Your task to perform on an android device: turn off sleep mode Image 0: 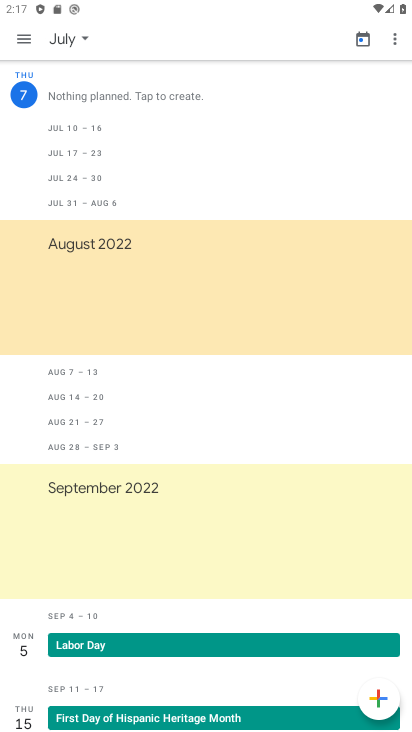
Step 0: press home button
Your task to perform on an android device: turn off sleep mode Image 1: 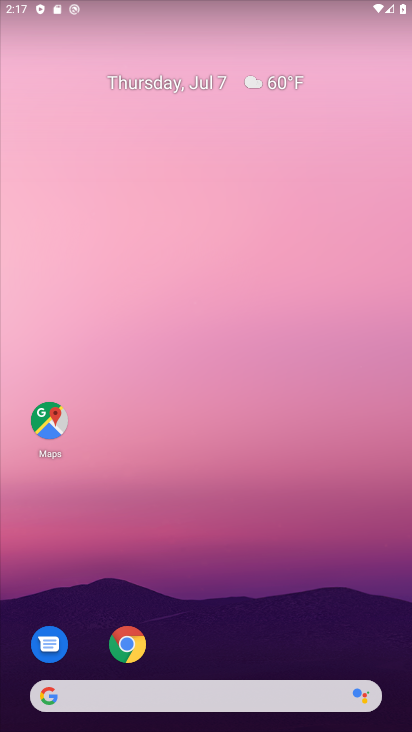
Step 1: drag from (203, 693) to (216, 279)
Your task to perform on an android device: turn off sleep mode Image 2: 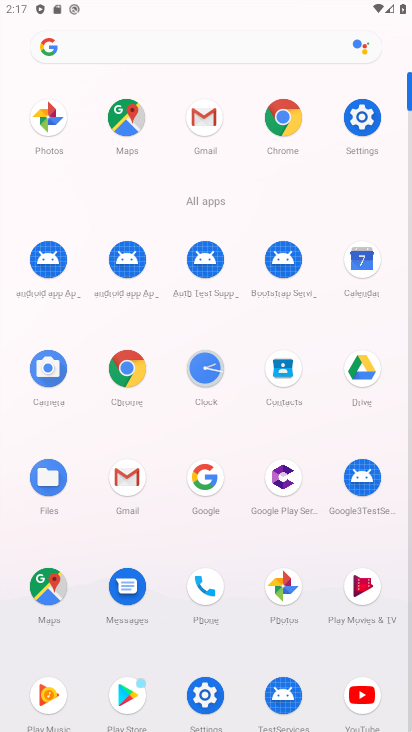
Step 2: click (366, 126)
Your task to perform on an android device: turn off sleep mode Image 3: 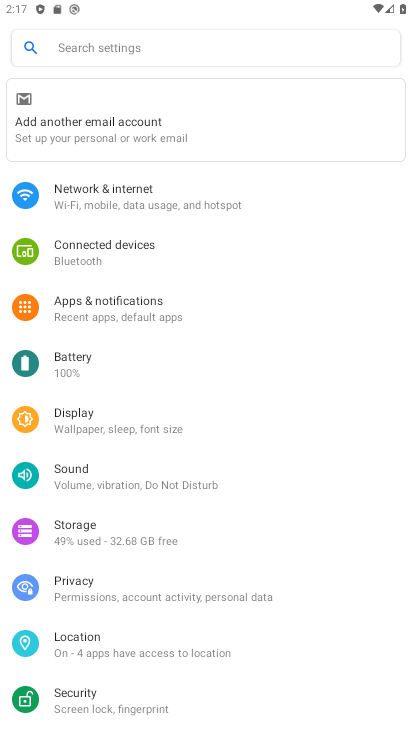
Step 3: click (109, 415)
Your task to perform on an android device: turn off sleep mode Image 4: 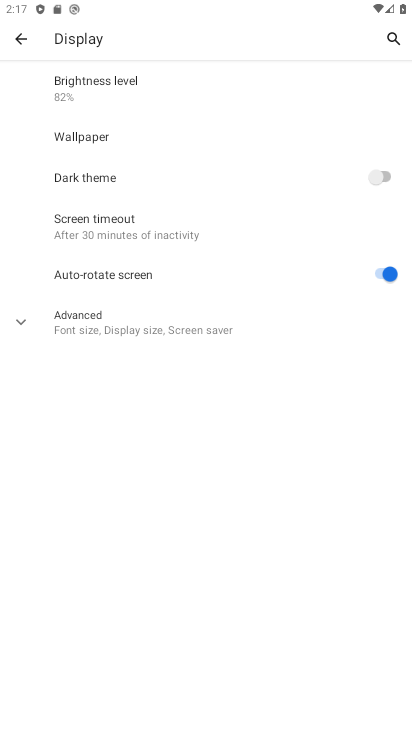
Step 4: click (101, 336)
Your task to perform on an android device: turn off sleep mode Image 5: 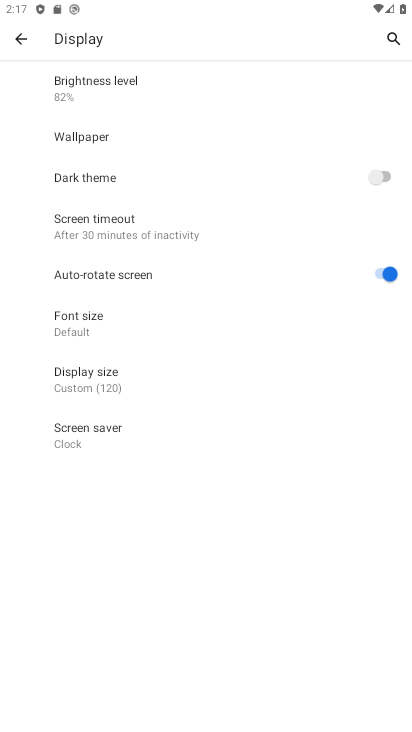
Step 5: task complete